Your task to perform on an android device: Open Youtube and go to "Your channel" Image 0: 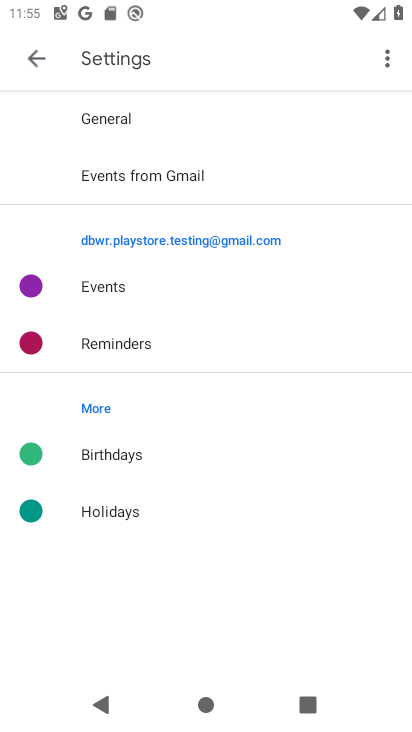
Step 0: press home button
Your task to perform on an android device: Open Youtube and go to "Your channel" Image 1: 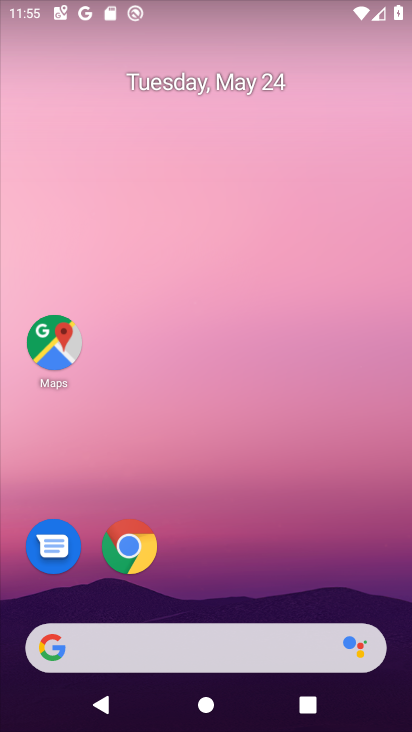
Step 1: drag from (216, 613) to (215, 63)
Your task to perform on an android device: Open Youtube and go to "Your channel" Image 2: 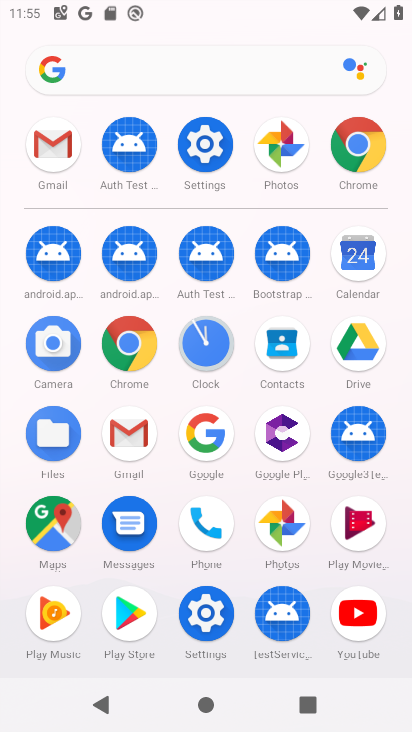
Step 2: click (373, 619)
Your task to perform on an android device: Open Youtube and go to "Your channel" Image 3: 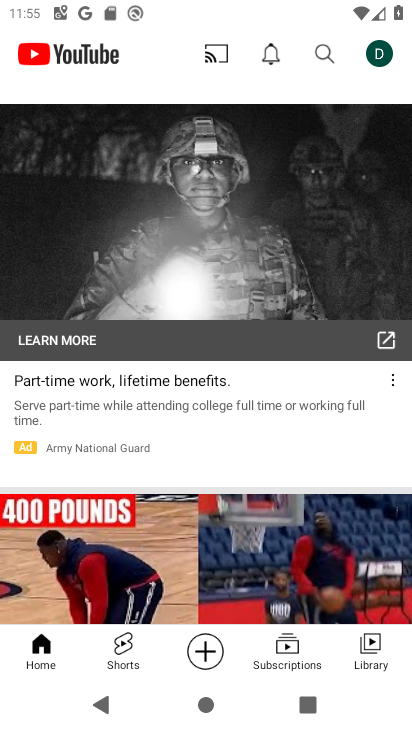
Step 3: click (380, 57)
Your task to perform on an android device: Open Youtube and go to "Your channel" Image 4: 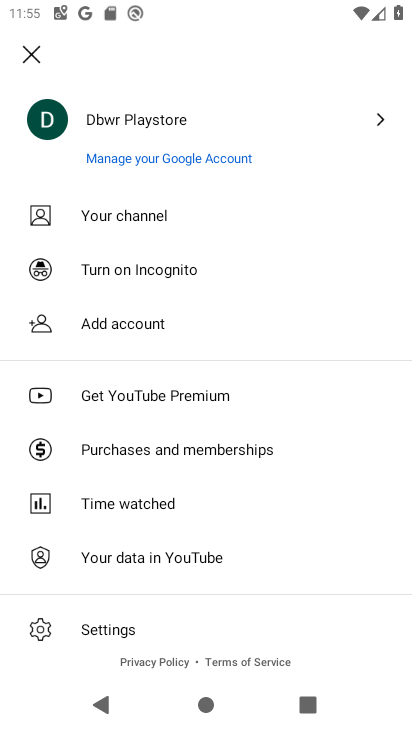
Step 4: click (139, 209)
Your task to perform on an android device: Open Youtube and go to "Your channel" Image 5: 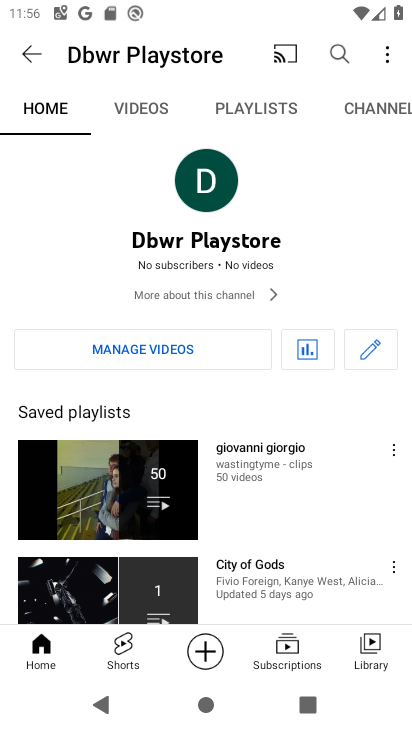
Step 5: task complete